Your task to perform on an android device: set an alarm Image 0: 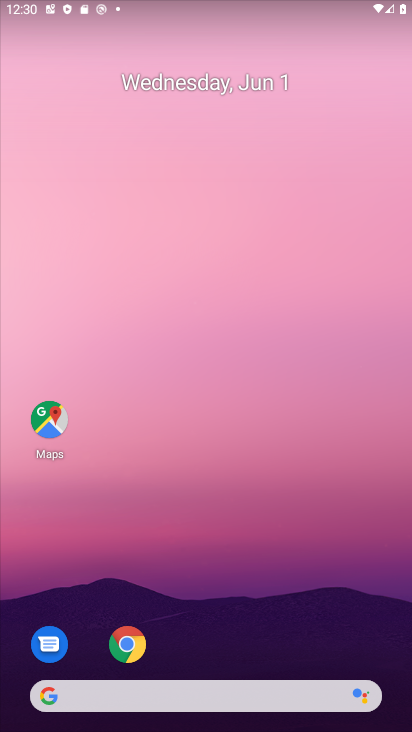
Step 0: drag from (357, 593) to (297, 214)
Your task to perform on an android device: set an alarm Image 1: 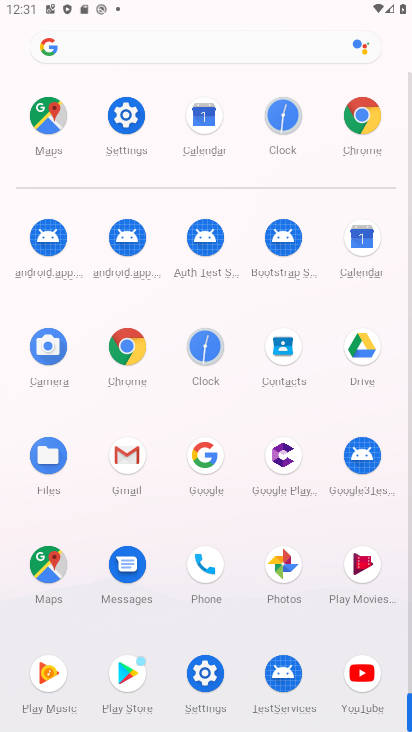
Step 1: click (194, 345)
Your task to perform on an android device: set an alarm Image 2: 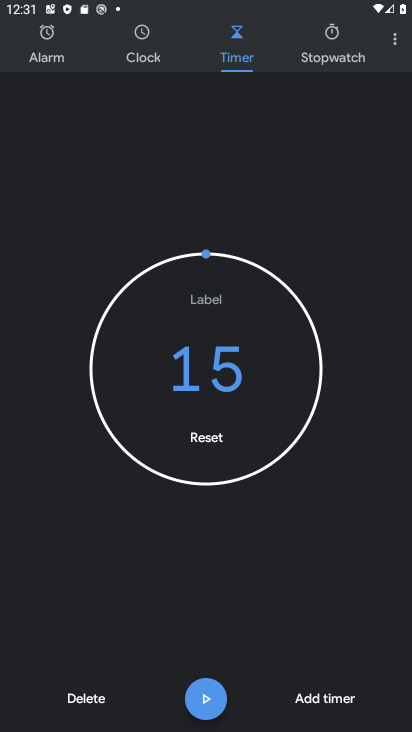
Step 2: click (121, 62)
Your task to perform on an android device: set an alarm Image 3: 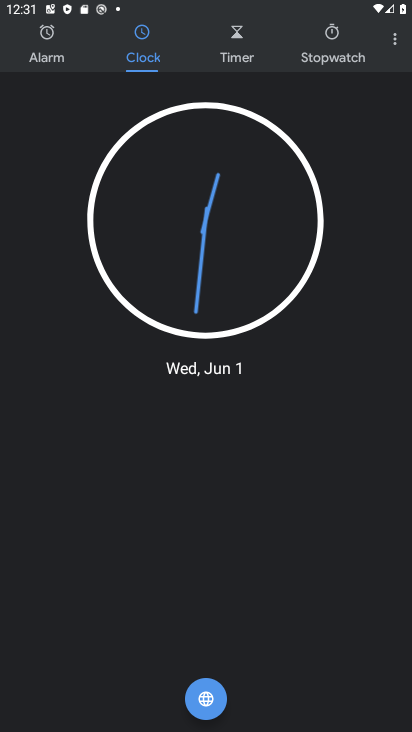
Step 3: click (50, 43)
Your task to perform on an android device: set an alarm Image 4: 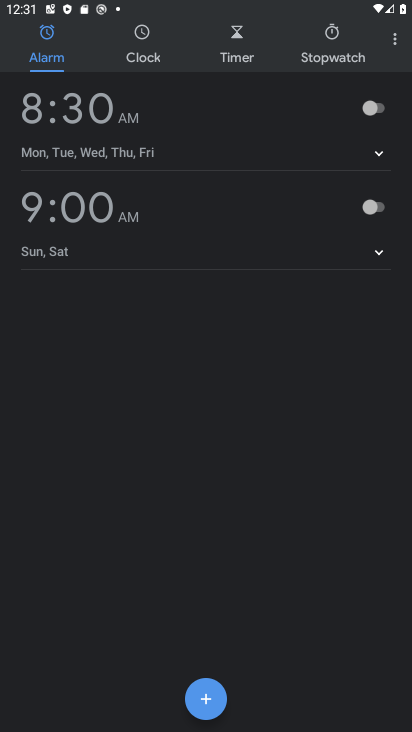
Step 4: click (208, 717)
Your task to perform on an android device: set an alarm Image 5: 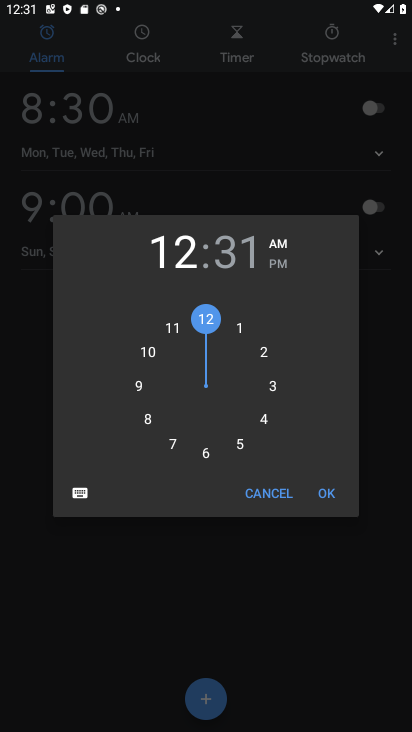
Step 5: click (318, 485)
Your task to perform on an android device: set an alarm Image 6: 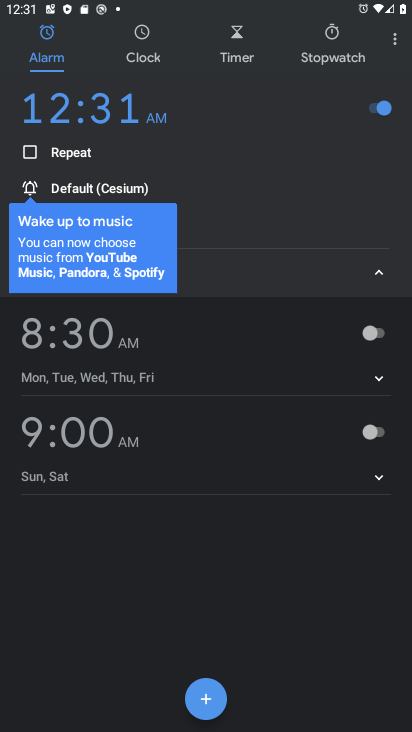
Step 6: task complete